Your task to perform on an android device: Clear all items from cart on amazon. Image 0: 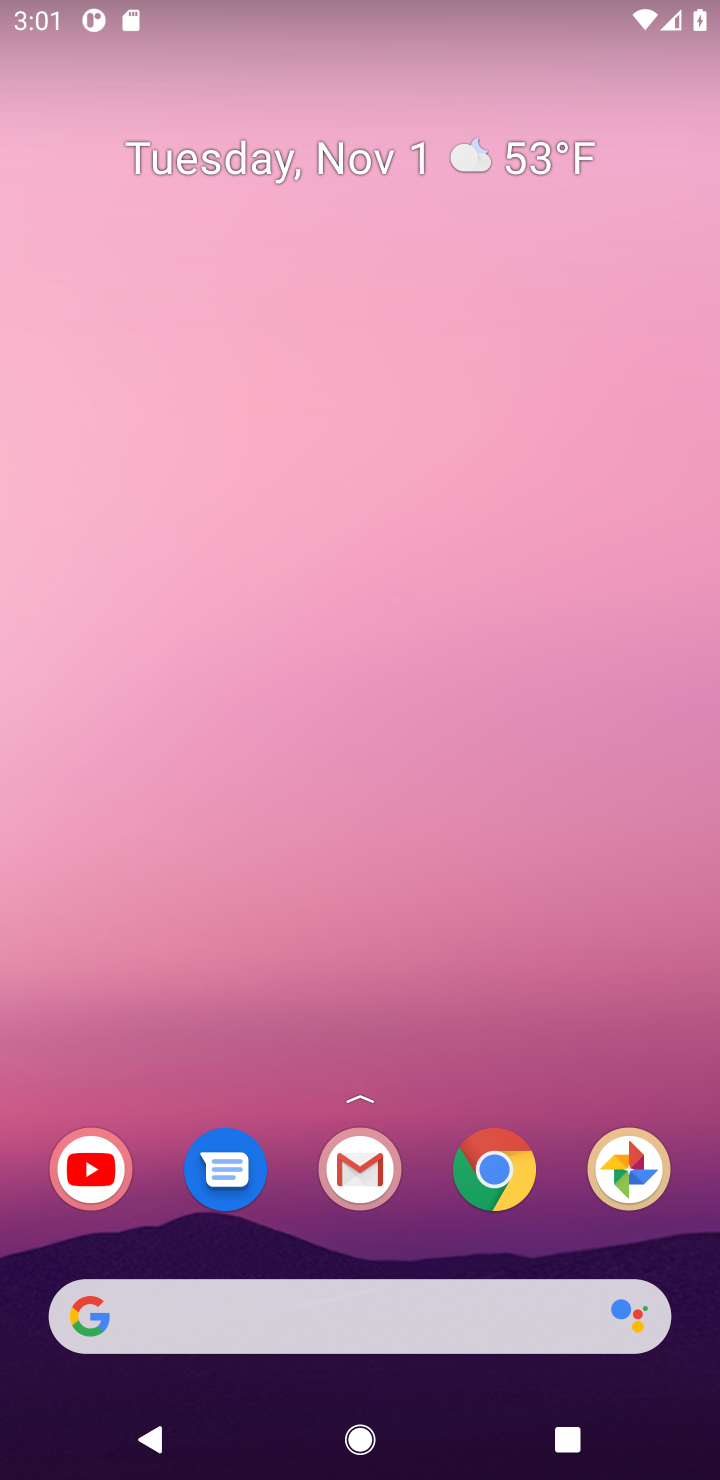
Step 0: drag from (417, 1098) to (565, 52)
Your task to perform on an android device: Clear all items from cart on amazon. Image 1: 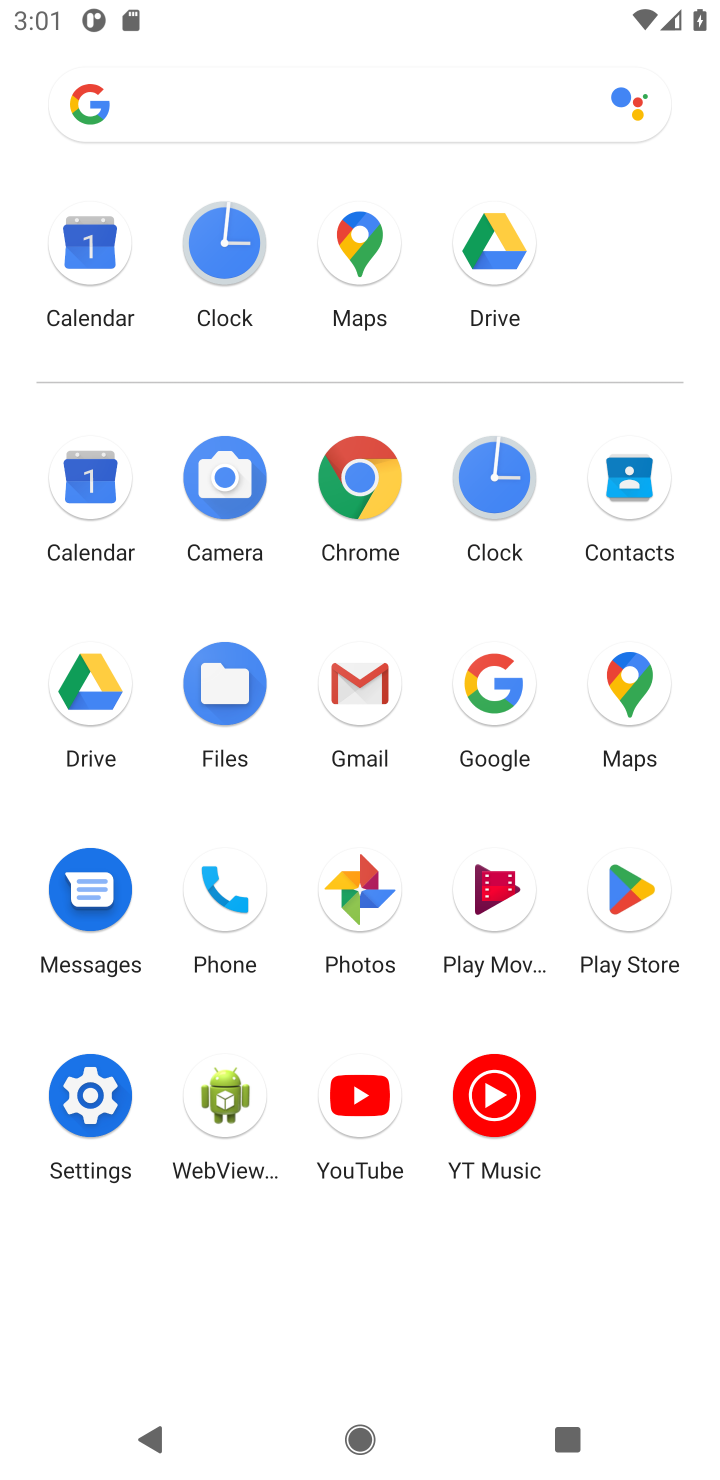
Step 1: click (359, 473)
Your task to perform on an android device: Clear all items from cart on amazon. Image 2: 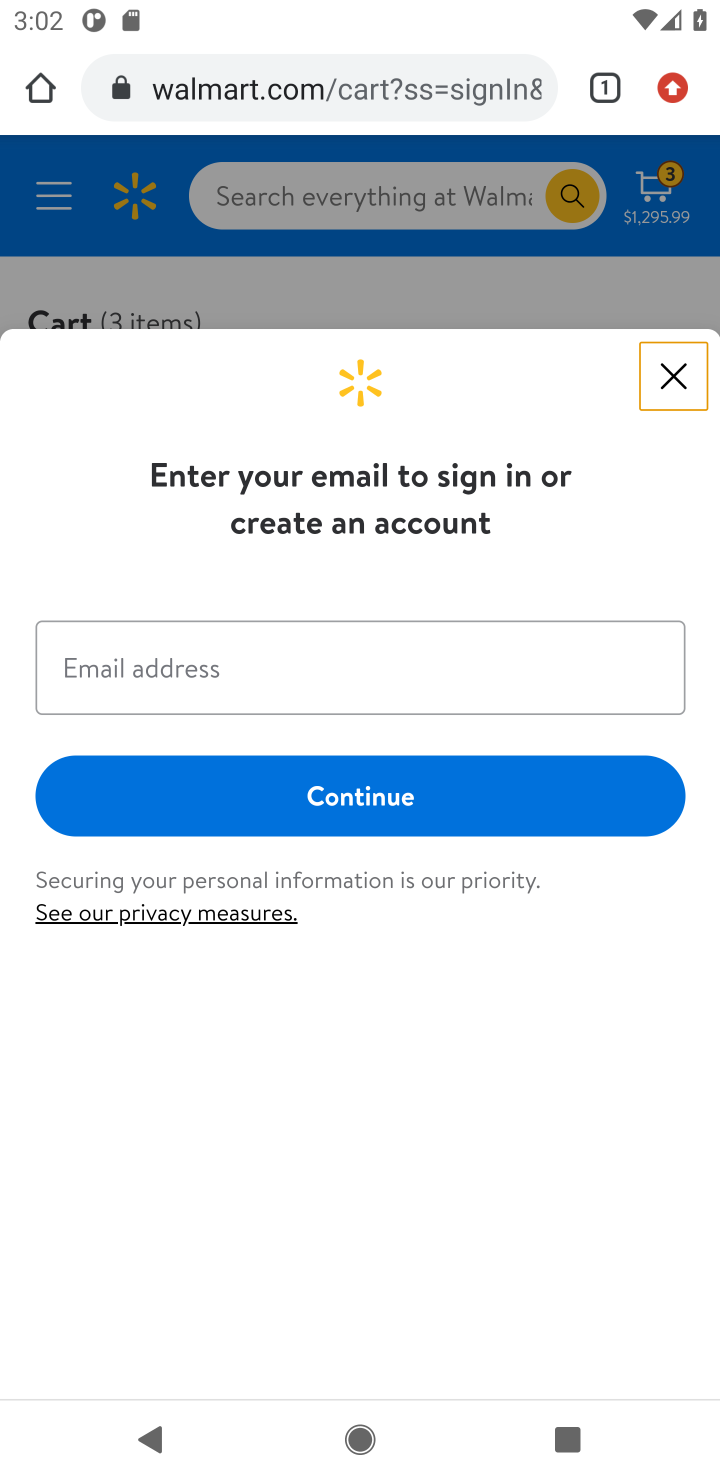
Step 2: click (193, 78)
Your task to perform on an android device: Clear all items from cart on amazon. Image 3: 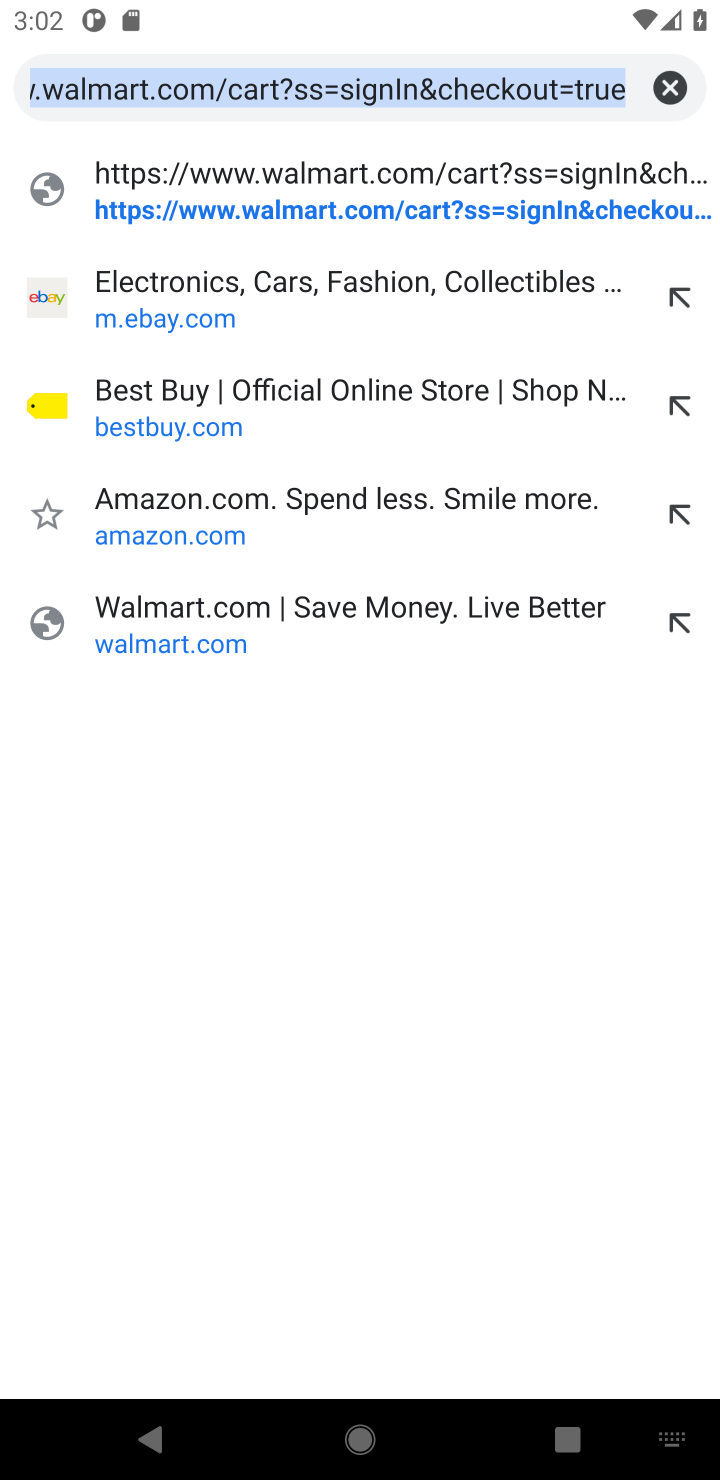
Step 3: type "amazon"
Your task to perform on an android device: Clear all items from cart on amazon. Image 4: 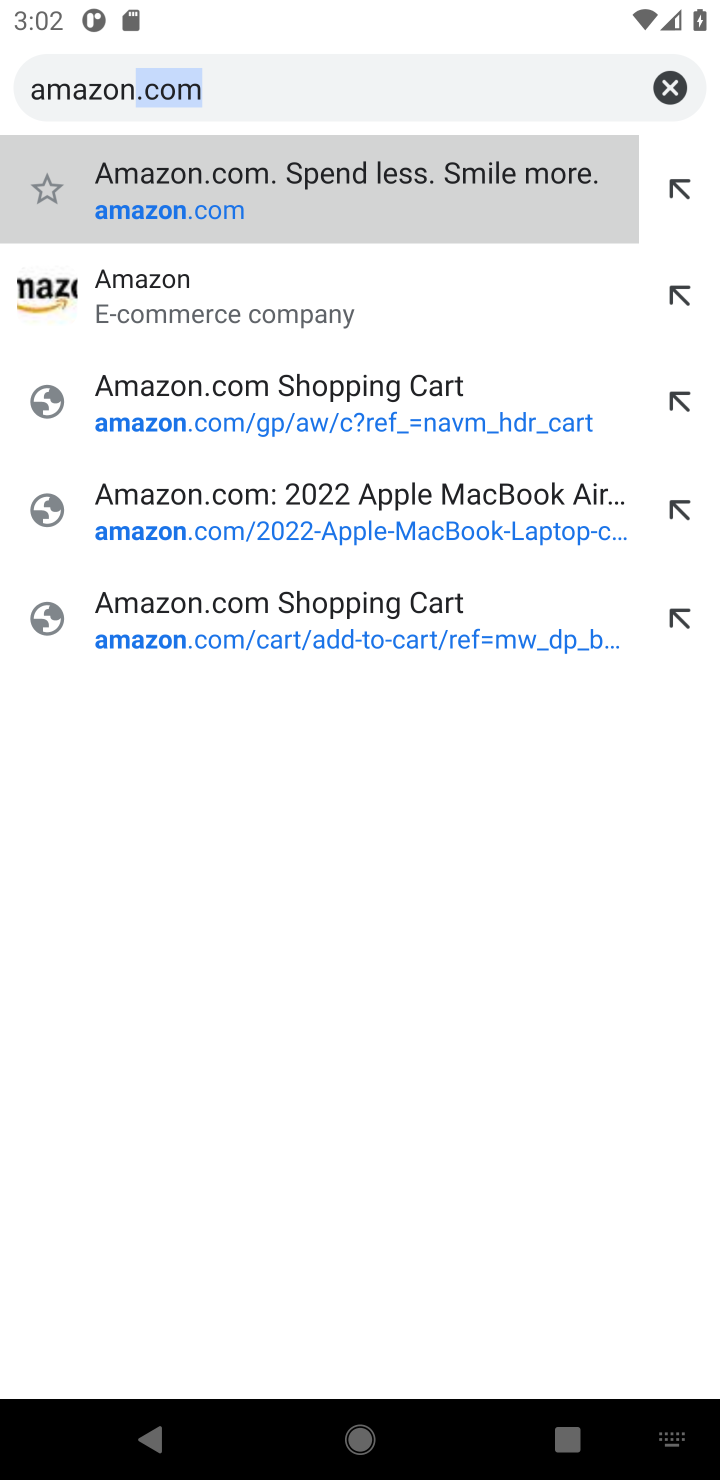
Step 4: click (239, 199)
Your task to perform on an android device: Clear all items from cart on amazon. Image 5: 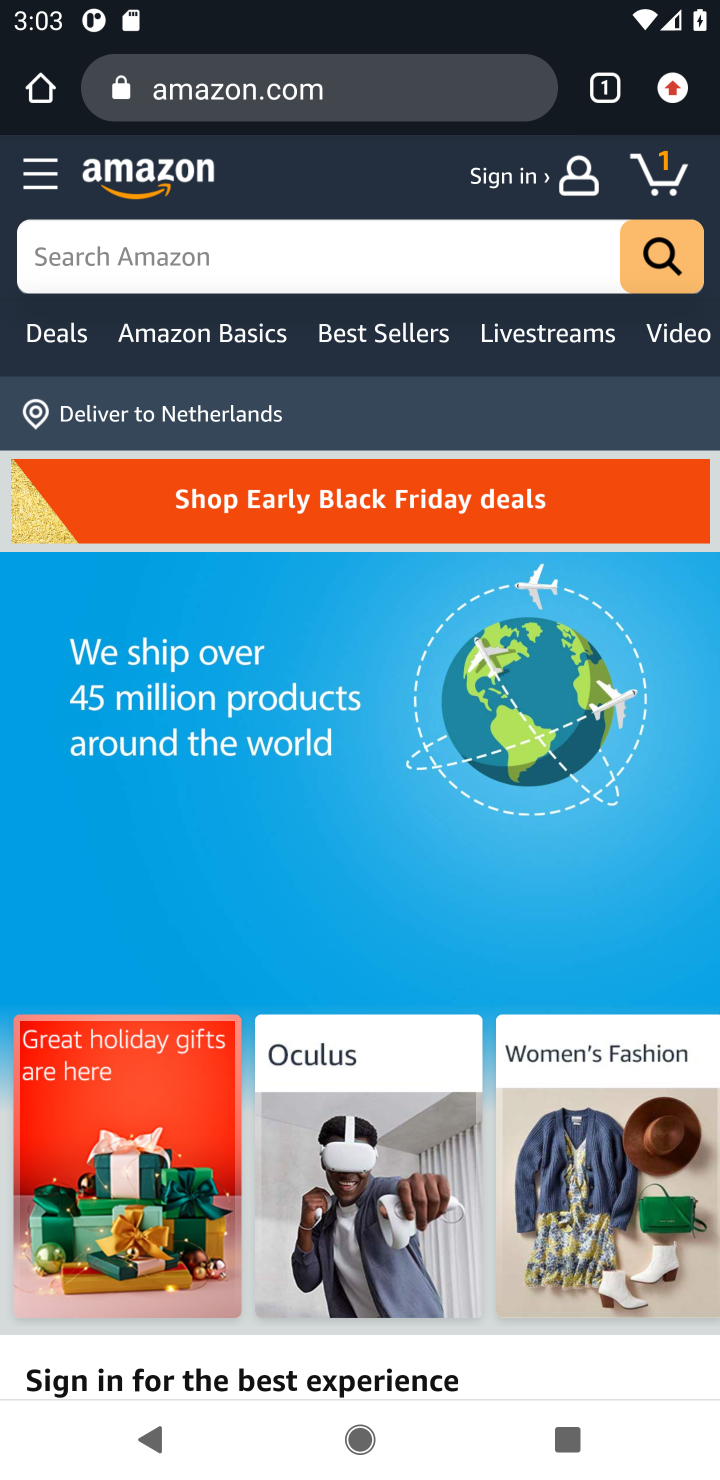
Step 5: click (654, 165)
Your task to perform on an android device: Clear all items from cart on amazon. Image 6: 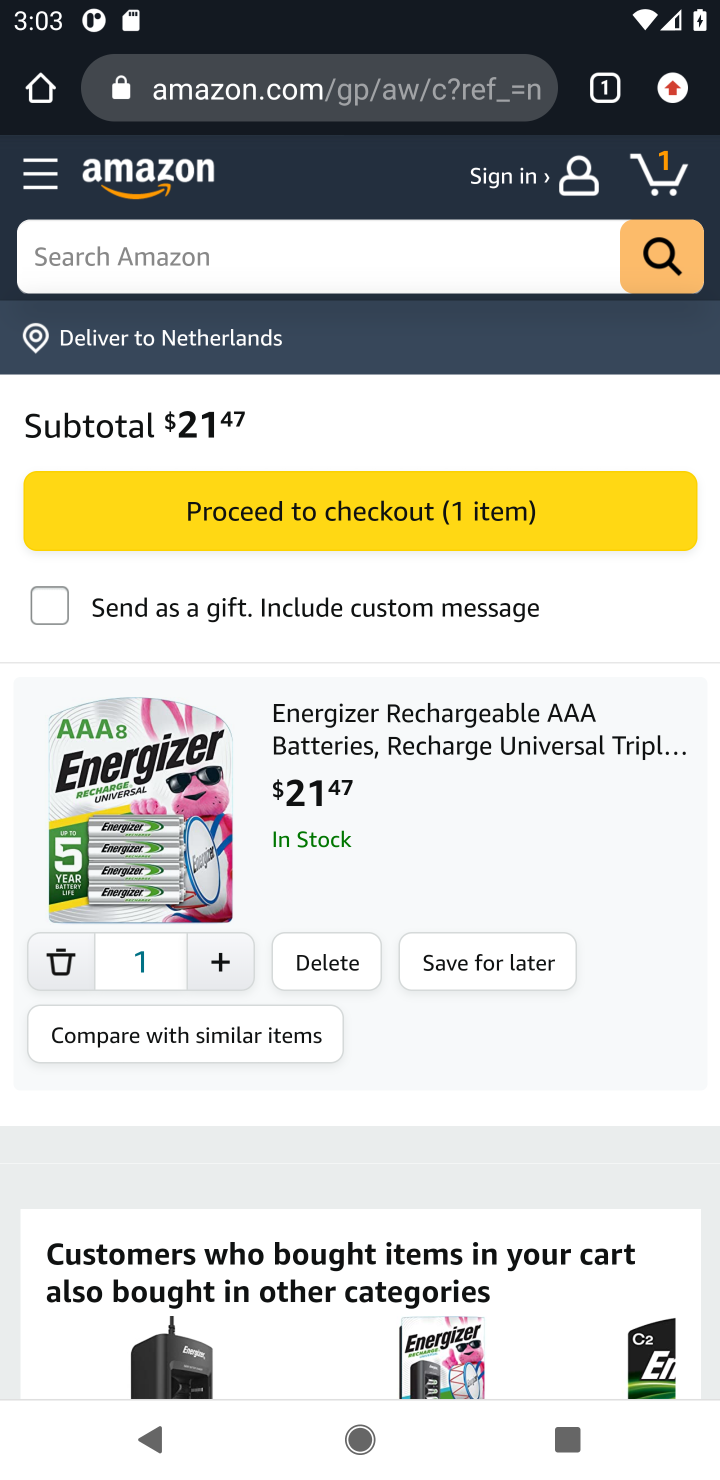
Step 6: click (45, 953)
Your task to perform on an android device: Clear all items from cart on amazon. Image 7: 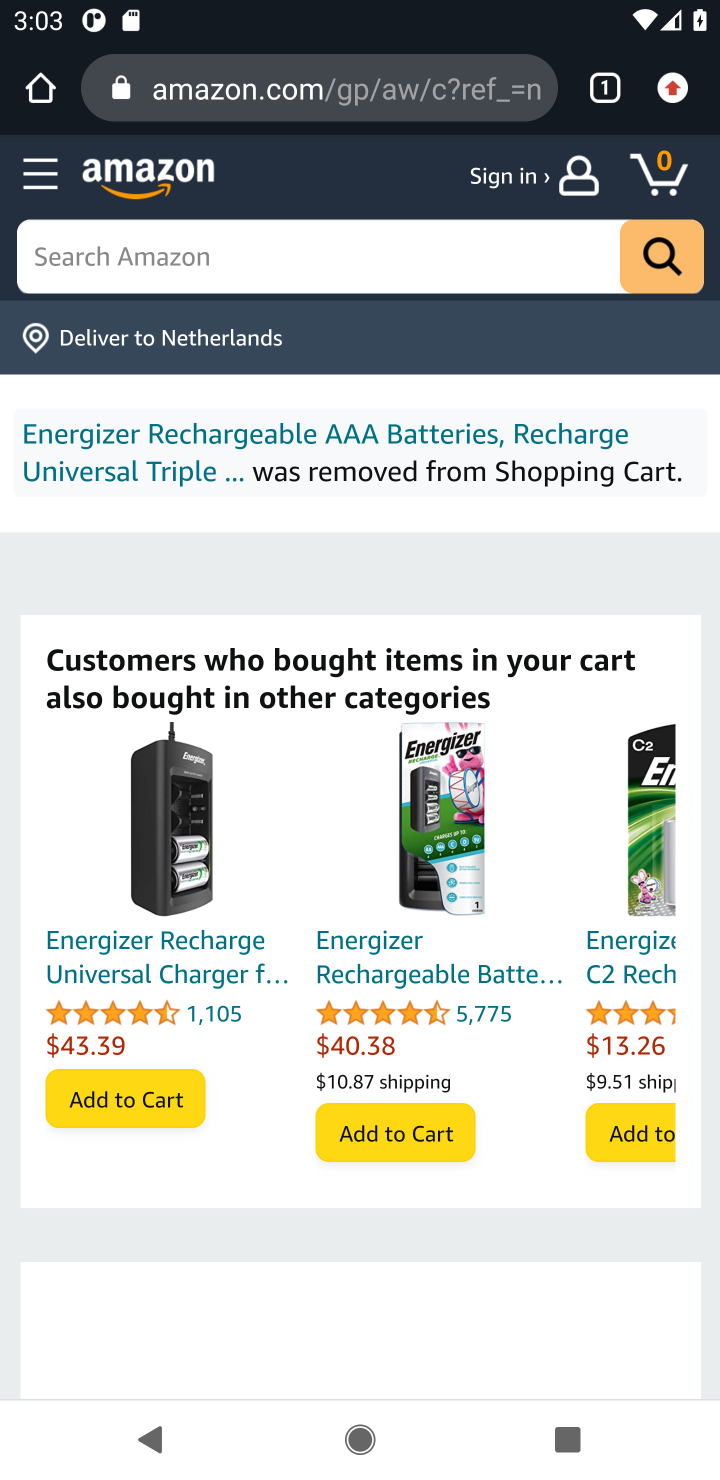
Step 7: task complete